Your task to perform on an android device: Open Chrome and go to settings Image 0: 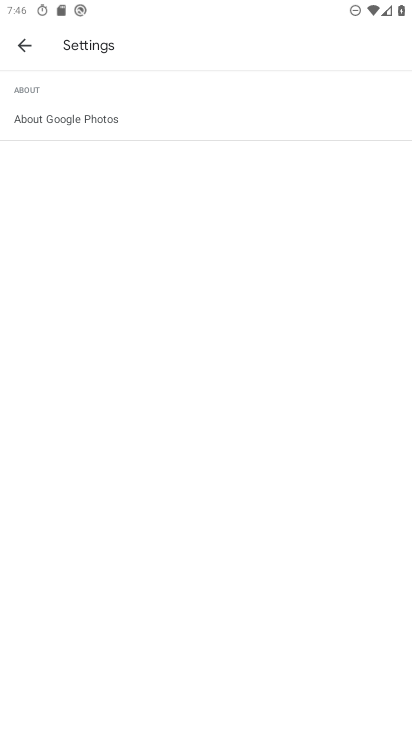
Step 0: press home button
Your task to perform on an android device: Open Chrome and go to settings Image 1: 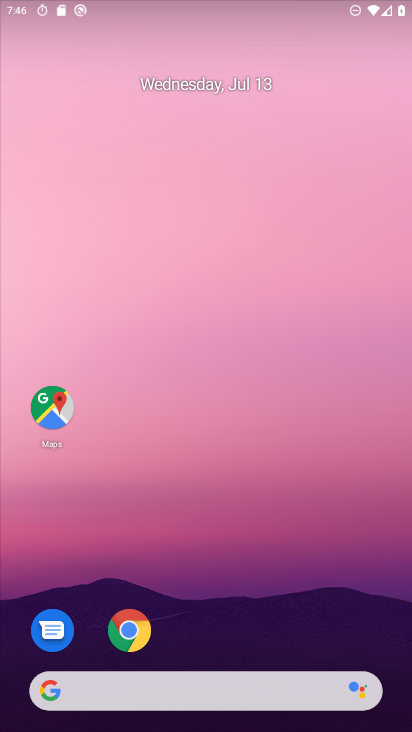
Step 1: drag from (387, 694) to (314, 12)
Your task to perform on an android device: Open Chrome and go to settings Image 2: 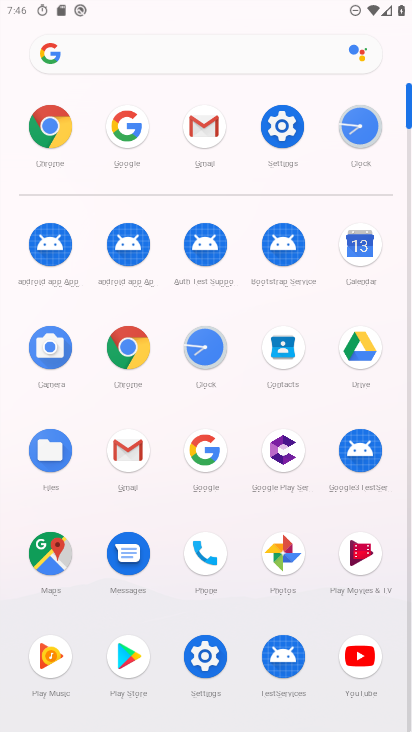
Step 2: click (40, 131)
Your task to perform on an android device: Open Chrome and go to settings Image 3: 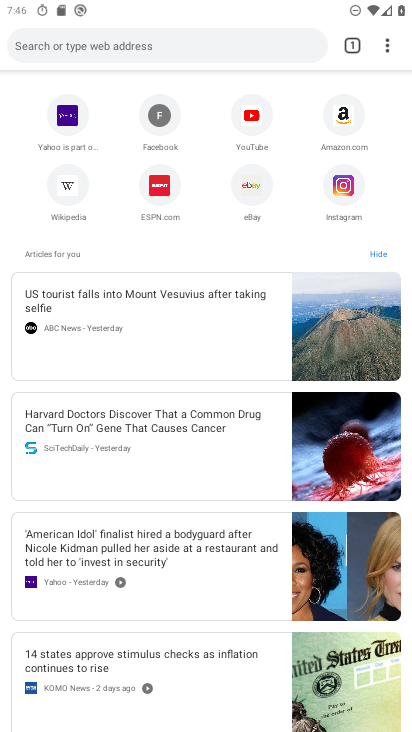
Step 3: click (386, 50)
Your task to perform on an android device: Open Chrome and go to settings Image 4: 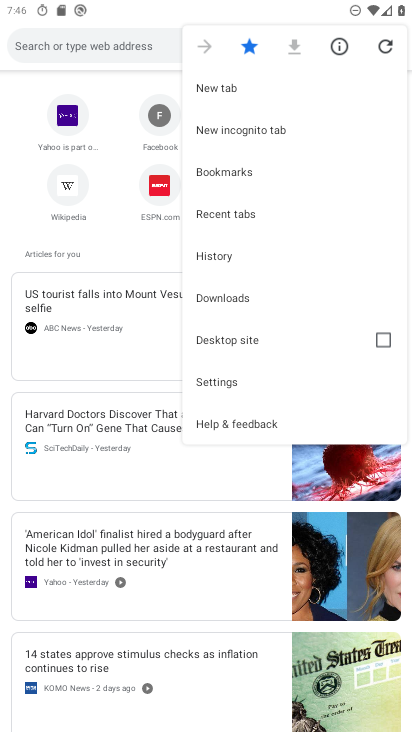
Step 4: click (215, 383)
Your task to perform on an android device: Open Chrome and go to settings Image 5: 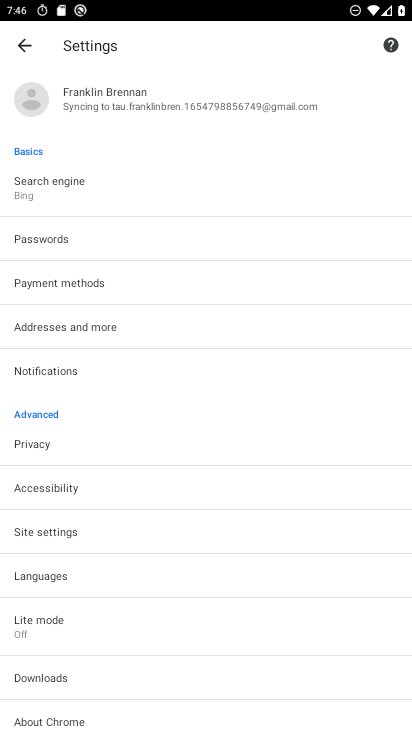
Step 5: task complete